Your task to perform on an android device: star an email in the gmail app Image 0: 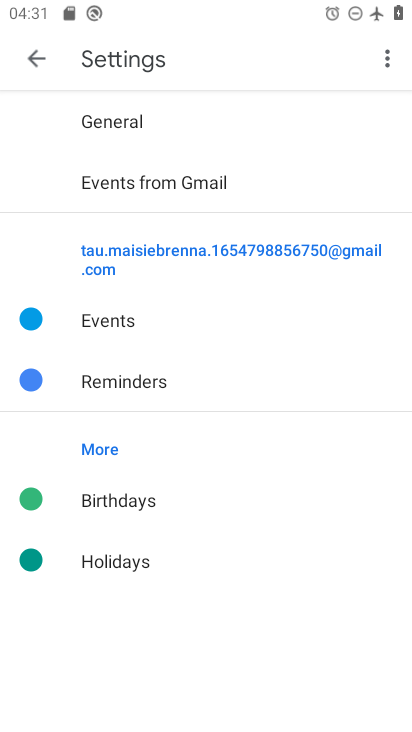
Step 0: press home button
Your task to perform on an android device: star an email in the gmail app Image 1: 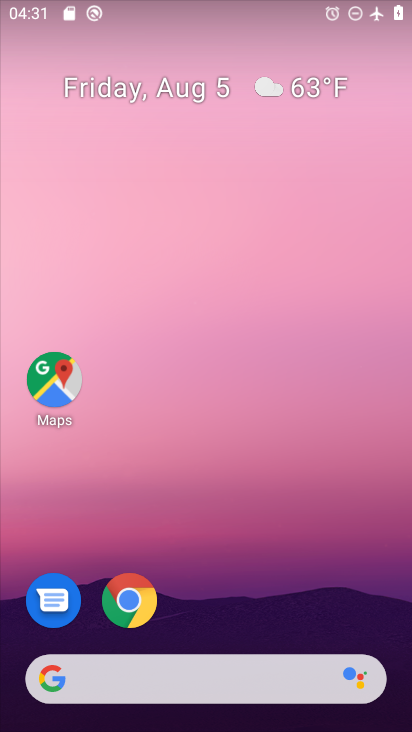
Step 1: drag from (168, 662) to (191, 155)
Your task to perform on an android device: star an email in the gmail app Image 2: 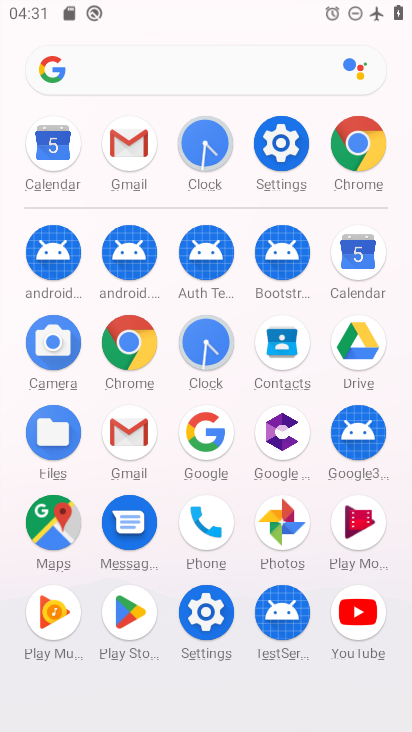
Step 2: click (129, 140)
Your task to perform on an android device: star an email in the gmail app Image 3: 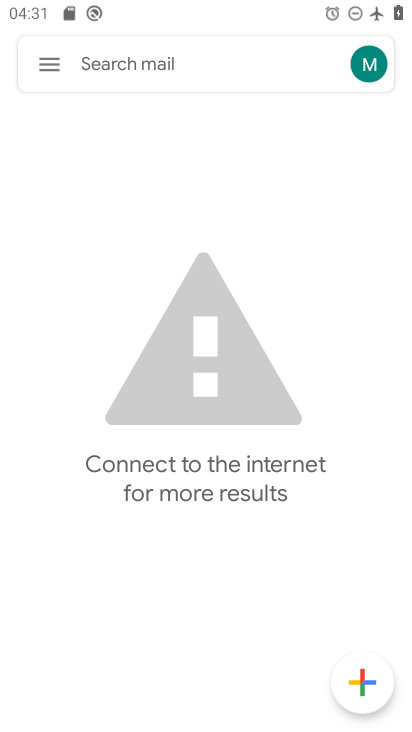
Step 3: click (51, 57)
Your task to perform on an android device: star an email in the gmail app Image 4: 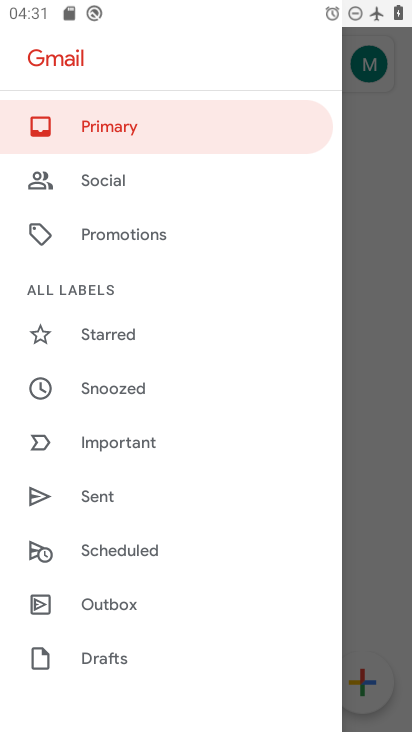
Step 4: drag from (113, 543) to (127, 397)
Your task to perform on an android device: star an email in the gmail app Image 5: 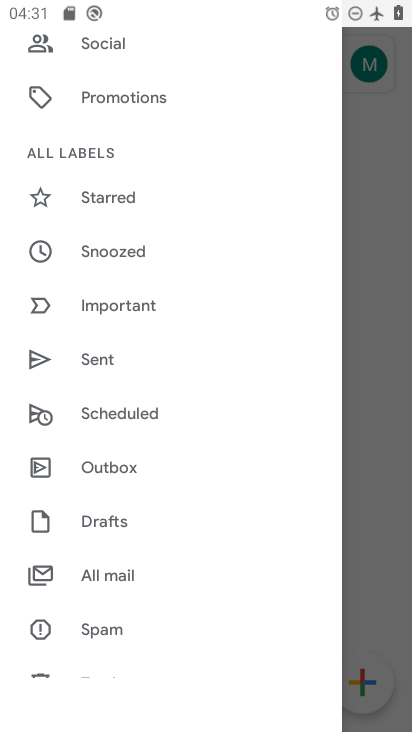
Step 5: click (114, 576)
Your task to perform on an android device: star an email in the gmail app Image 6: 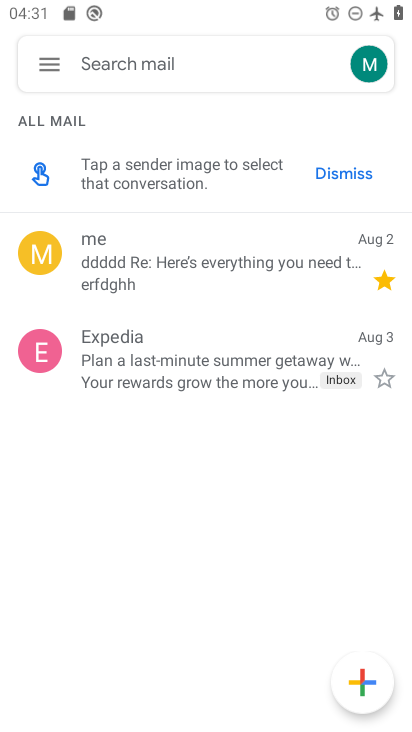
Step 6: click (381, 377)
Your task to perform on an android device: star an email in the gmail app Image 7: 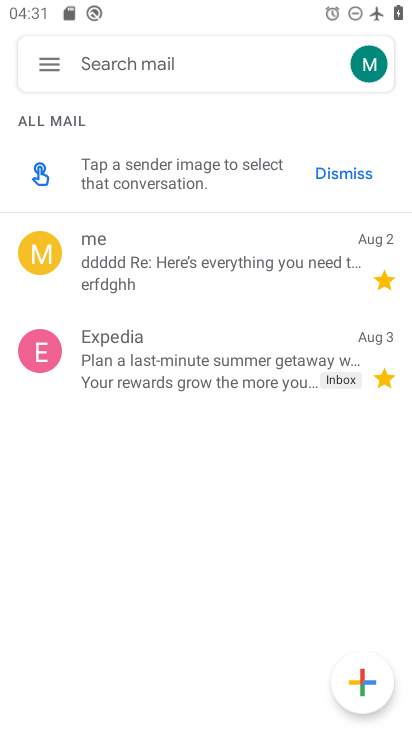
Step 7: task complete